Your task to perform on an android device: Open CNN.com Image 0: 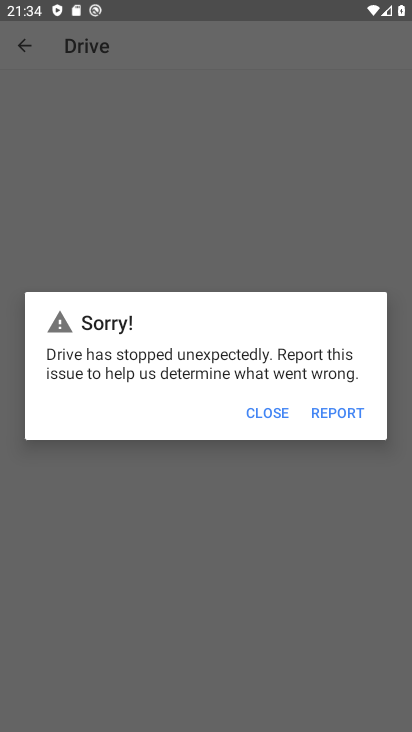
Step 0: press back button
Your task to perform on an android device: Open CNN.com Image 1: 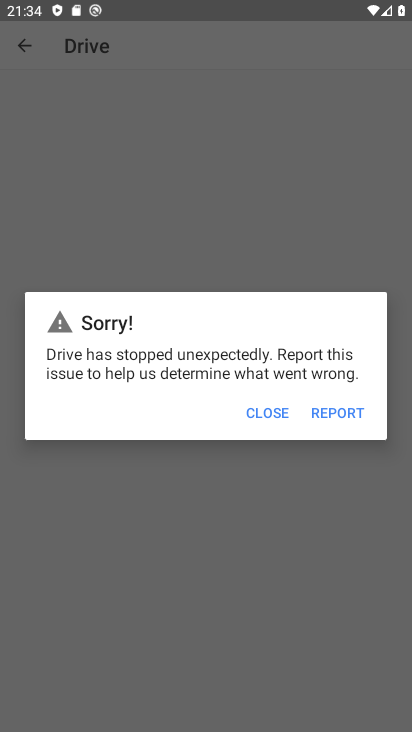
Step 1: press home button
Your task to perform on an android device: Open CNN.com Image 2: 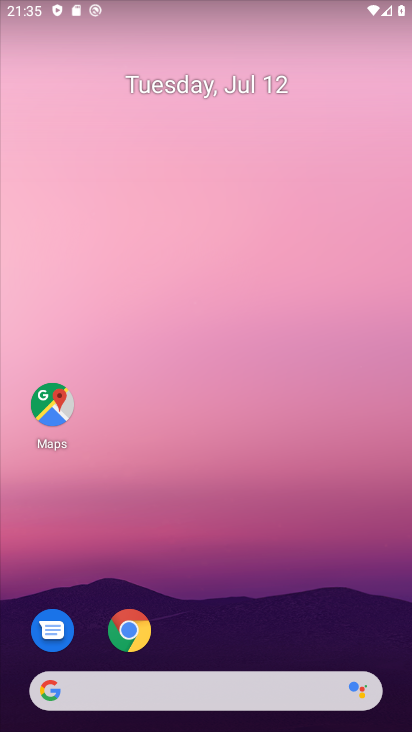
Step 2: click (122, 638)
Your task to perform on an android device: Open CNN.com Image 3: 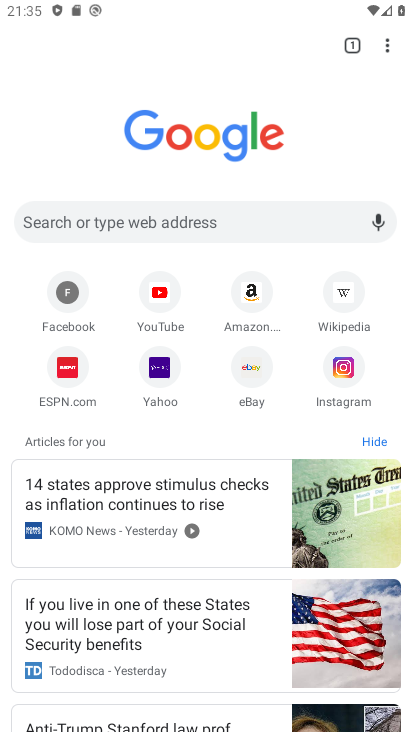
Step 3: click (185, 220)
Your task to perform on an android device: Open CNN.com Image 4: 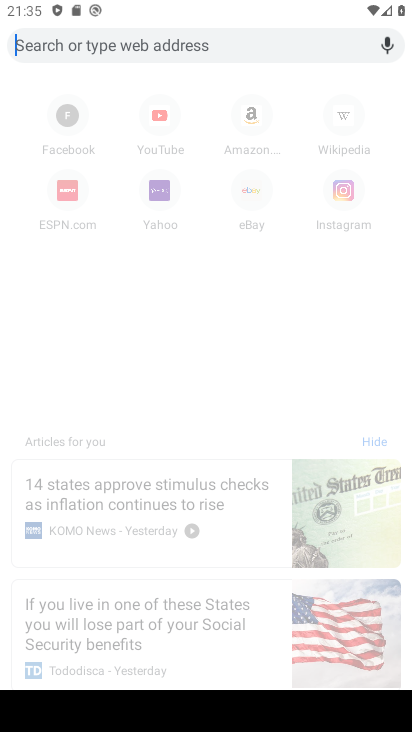
Step 4: type "cnn.com"
Your task to perform on an android device: Open CNN.com Image 5: 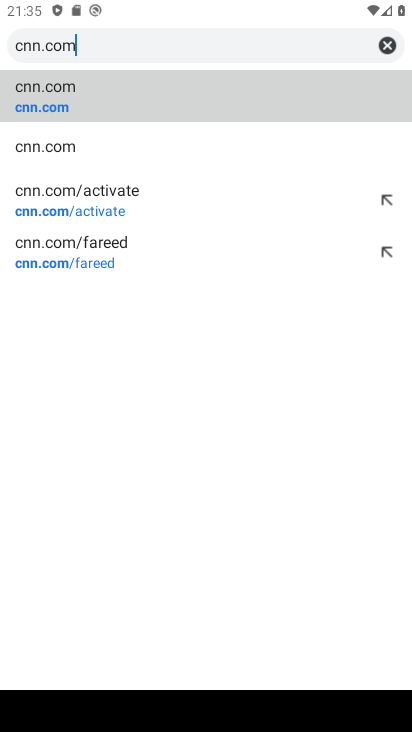
Step 5: click (63, 97)
Your task to perform on an android device: Open CNN.com Image 6: 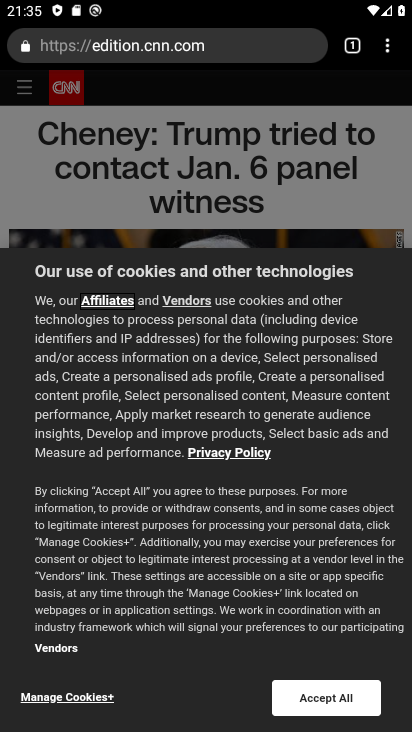
Step 6: task complete